Your task to perform on an android device: Go to Android settings Image 0: 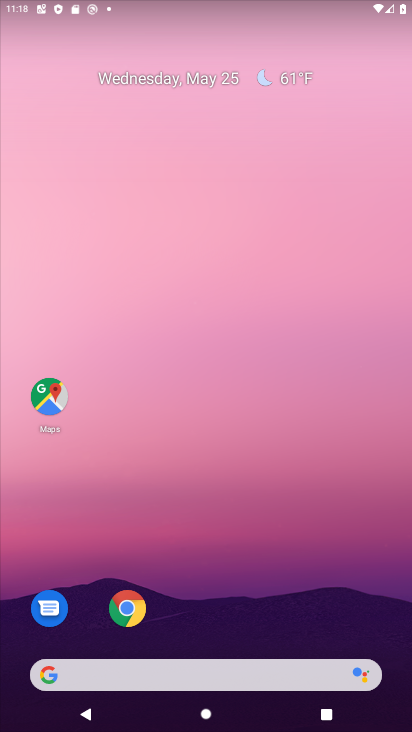
Step 0: drag from (192, 631) to (278, 164)
Your task to perform on an android device: Go to Android settings Image 1: 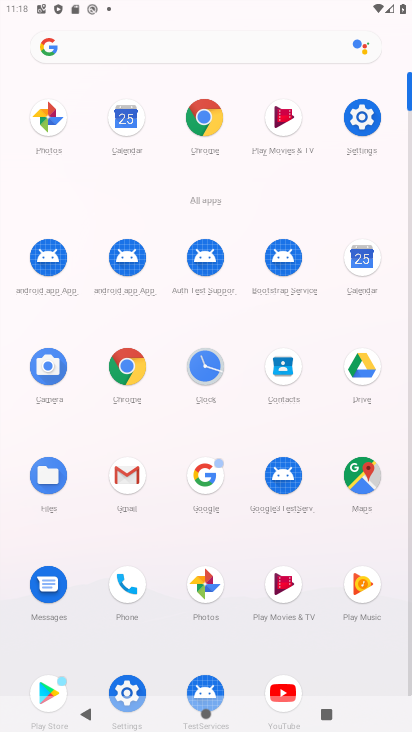
Step 1: click (369, 119)
Your task to perform on an android device: Go to Android settings Image 2: 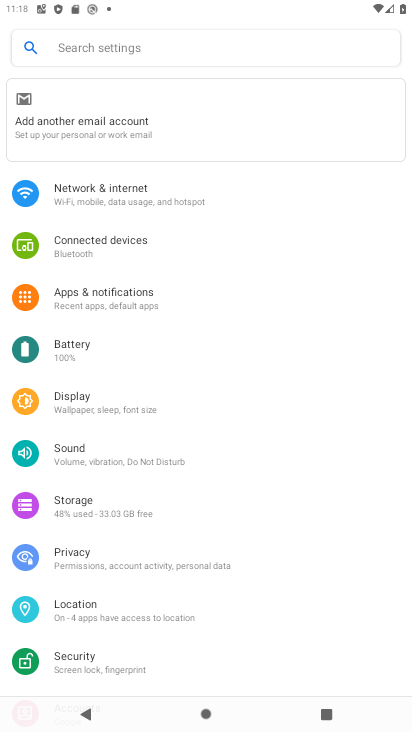
Step 2: drag from (164, 627) to (274, 62)
Your task to perform on an android device: Go to Android settings Image 3: 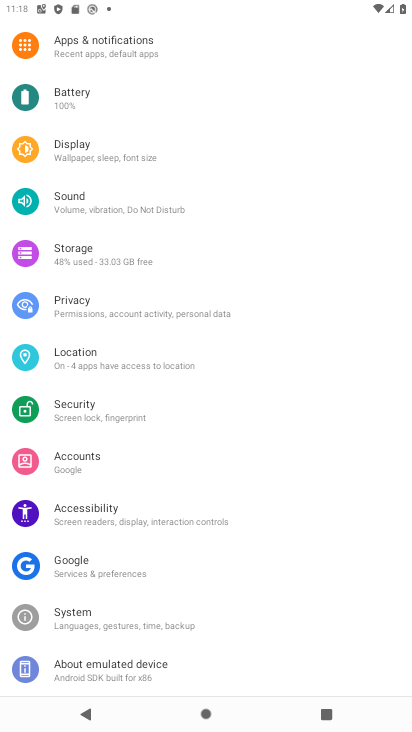
Step 3: drag from (131, 670) to (218, 89)
Your task to perform on an android device: Go to Android settings Image 4: 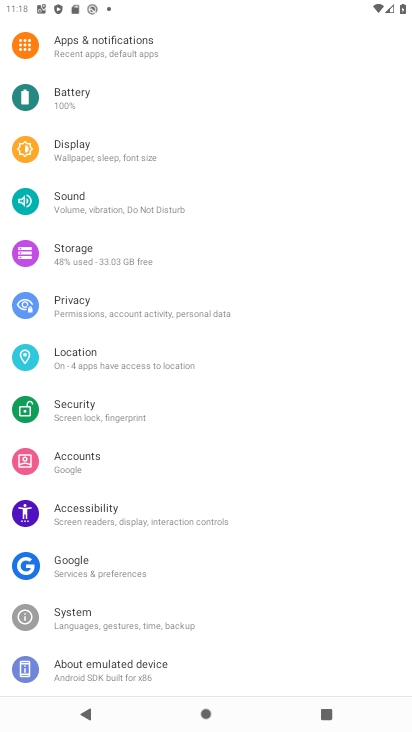
Step 4: click (131, 663)
Your task to perform on an android device: Go to Android settings Image 5: 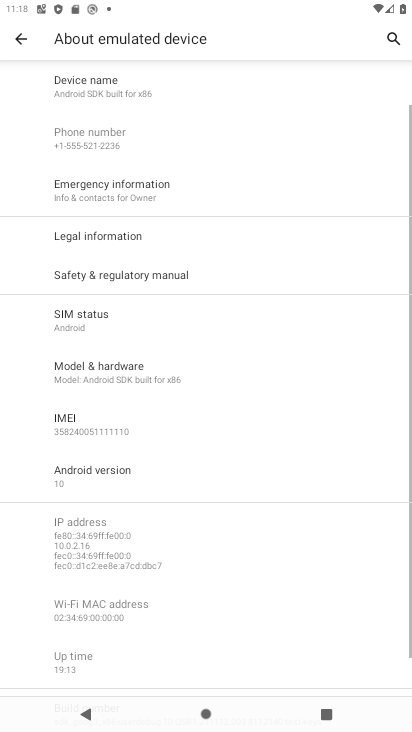
Step 5: task complete